Your task to perform on an android device: Go to internet settings Image 0: 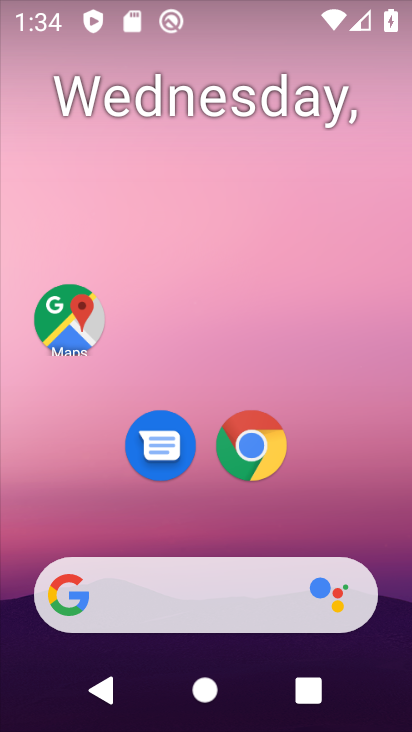
Step 0: drag from (380, 505) to (266, 32)
Your task to perform on an android device: Go to internet settings Image 1: 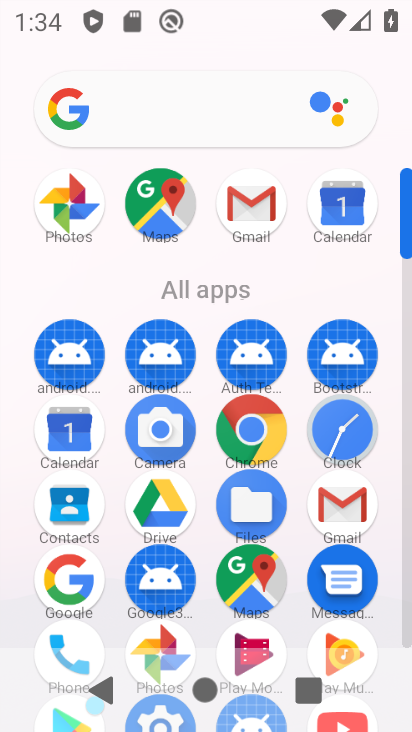
Step 1: click (404, 627)
Your task to perform on an android device: Go to internet settings Image 2: 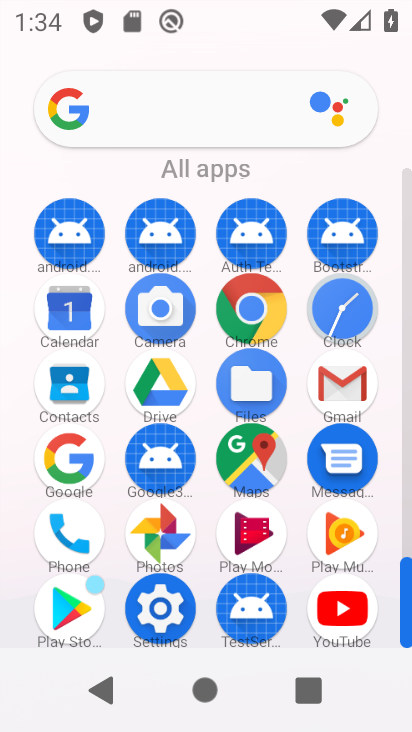
Step 2: click (155, 594)
Your task to perform on an android device: Go to internet settings Image 3: 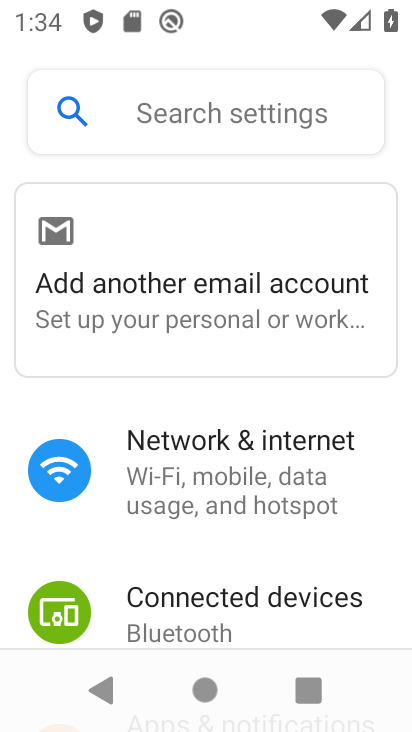
Step 3: click (224, 454)
Your task to perform on an android device: Go to internet settings Image 4: 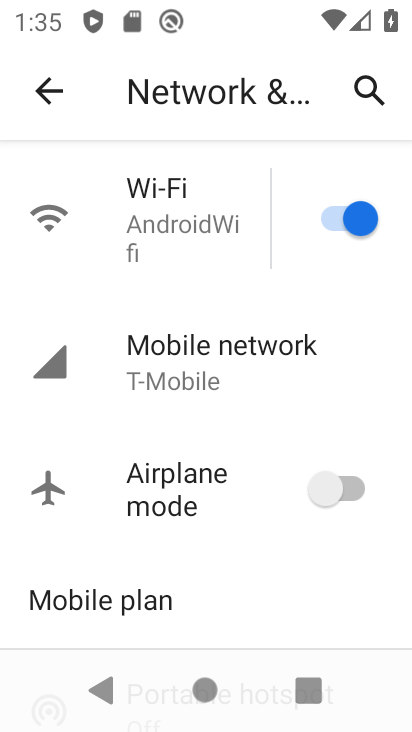
Step 4: task complete